Your task to perform on an android device: turn on location history Image 0: 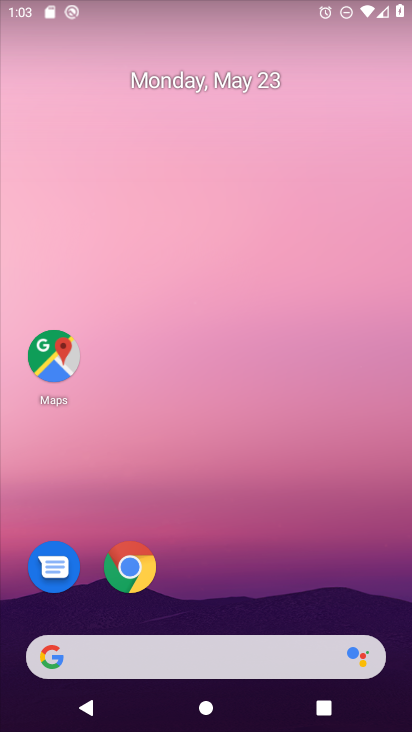
Step 0: drag from (196, 614) to (240, 154)
Your task to perform on an android device: turn on location history Image 1: 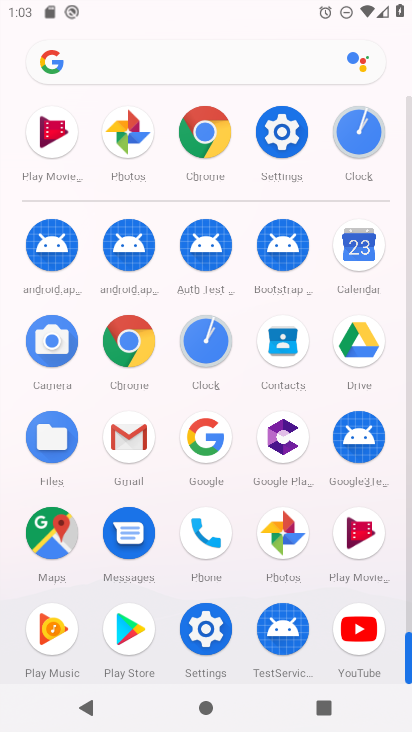
Step 1: click (269, 121)
Your task to perform on an android device: turn on location history Image 2: 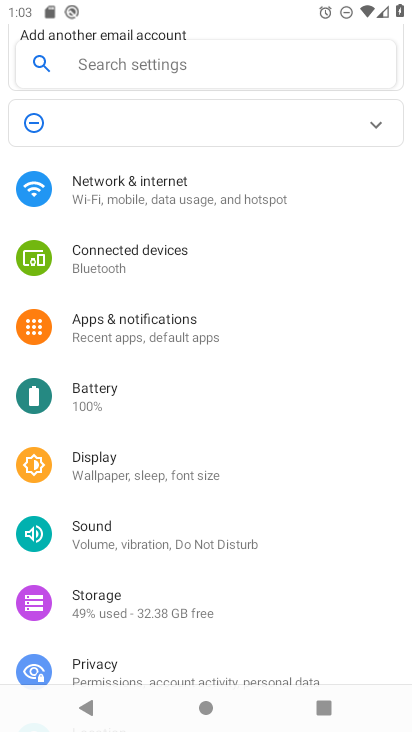
Step 2: drag from (104, 652) to (225, 113)
Your task to perform on an android device: turn on location history Image 3: 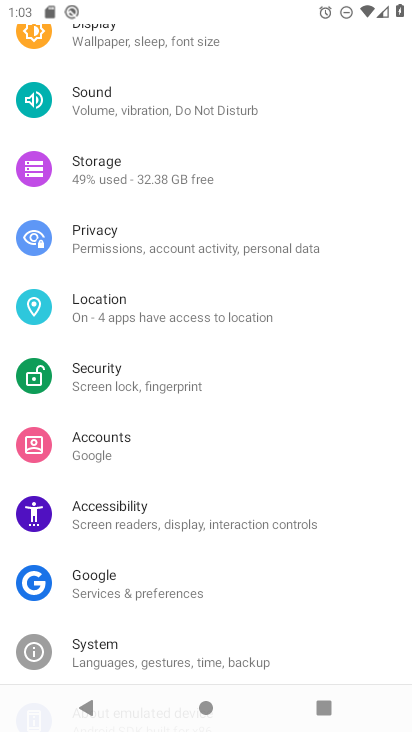
Step 3: click (116, 295)
Your task to perform on an android device: turn on location history Image 4: 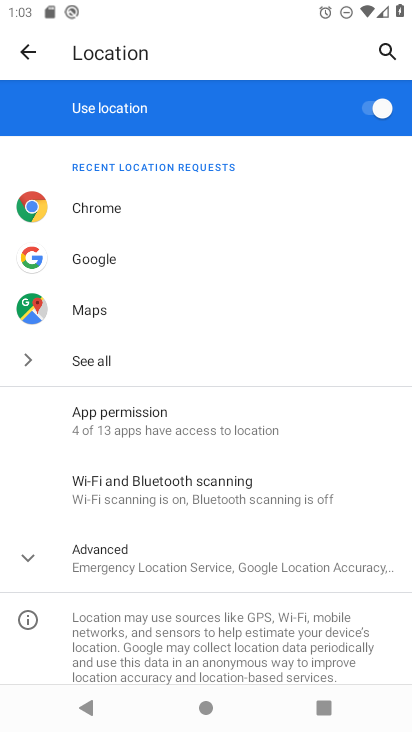
Step 4: click (105, 569)
Your task to perform on an android device: turn on location history Image 5: 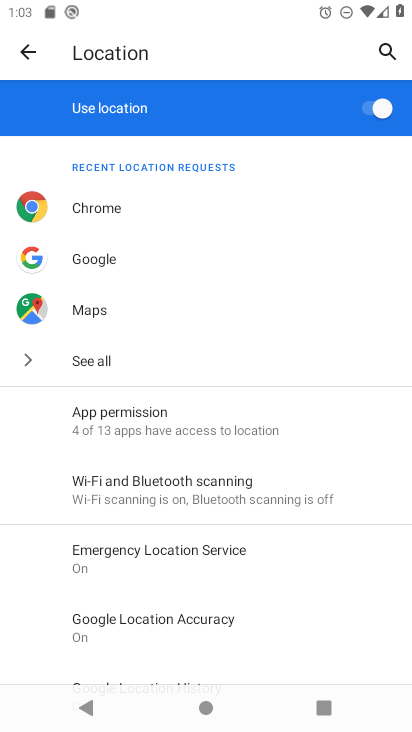
Step 5: drag from (135, 631) to (234, 151)
Your task to perform on an android device: turn on location history Image 6: 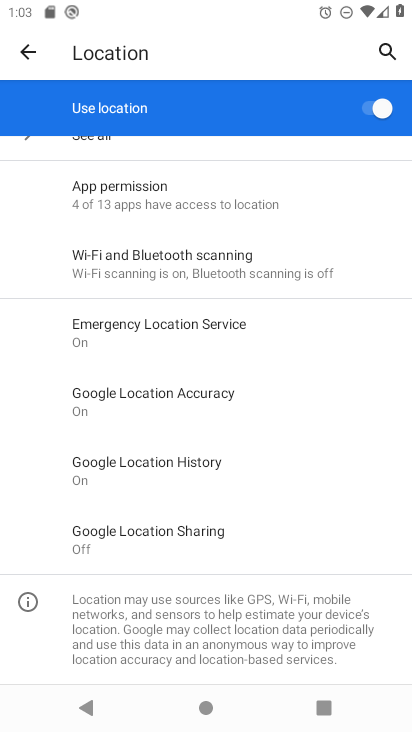
Step 6: click (87, 615)
Your task to perform on an android device: turn on location history Image 7: 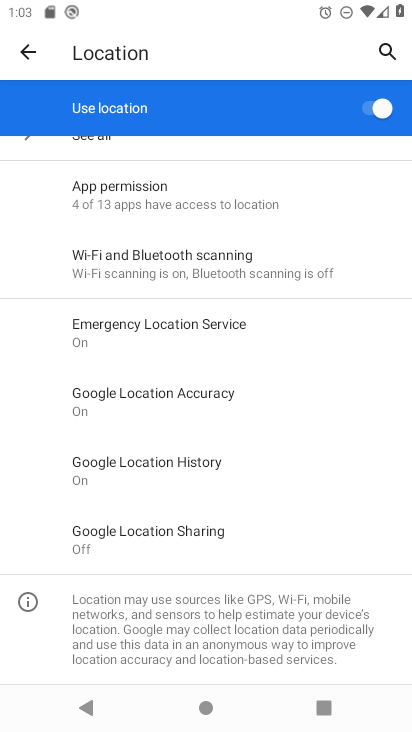
Step 7: task complete